Your task to perform on an android device: Clear the cart on target.com. Search for "usb-a to usb-b" on target.com, select the first entry, and add it to the cart. Image 0: 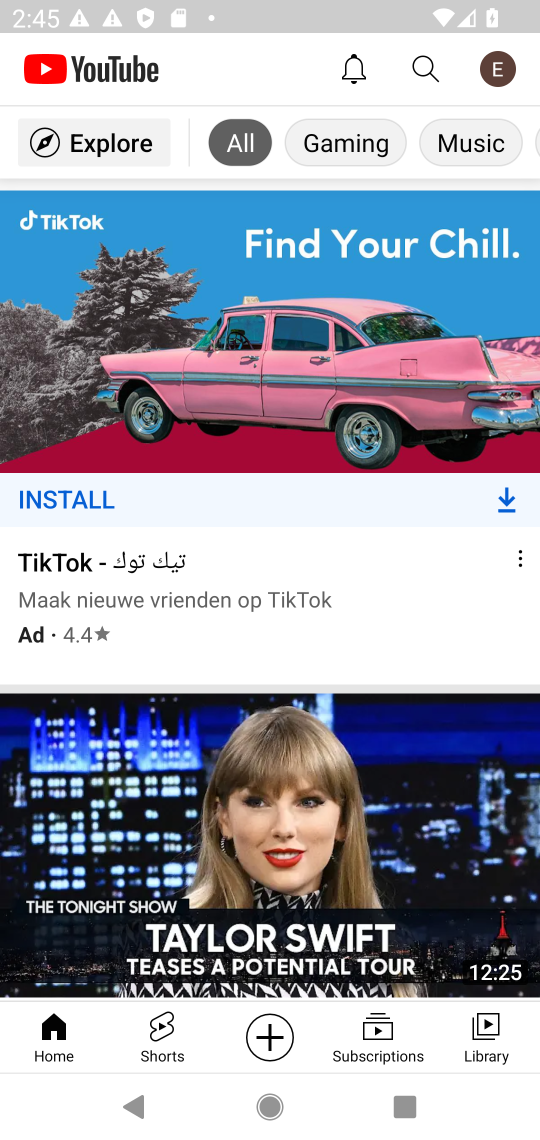
Step 0: drag from (382, 600) to (387, 273)
Your task to perform on an android device: Clear the cart on target.com. Search for "usb-a to usb-b" on target.com, select the first entry, and add it to the cart. Image 1: 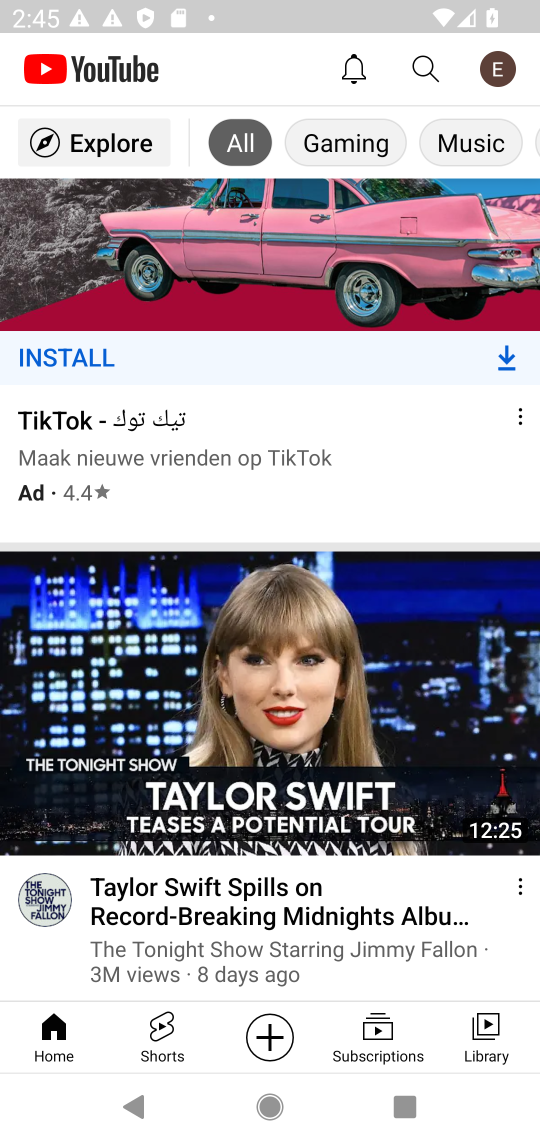
Step 1: drag from (323, 830) to (298, 263)
Your task to perform on an android device: Clear the cart on target.com. Search for "usb-a to usb-b" on target.com, select the first entry, and add it to the cart. Image 2: 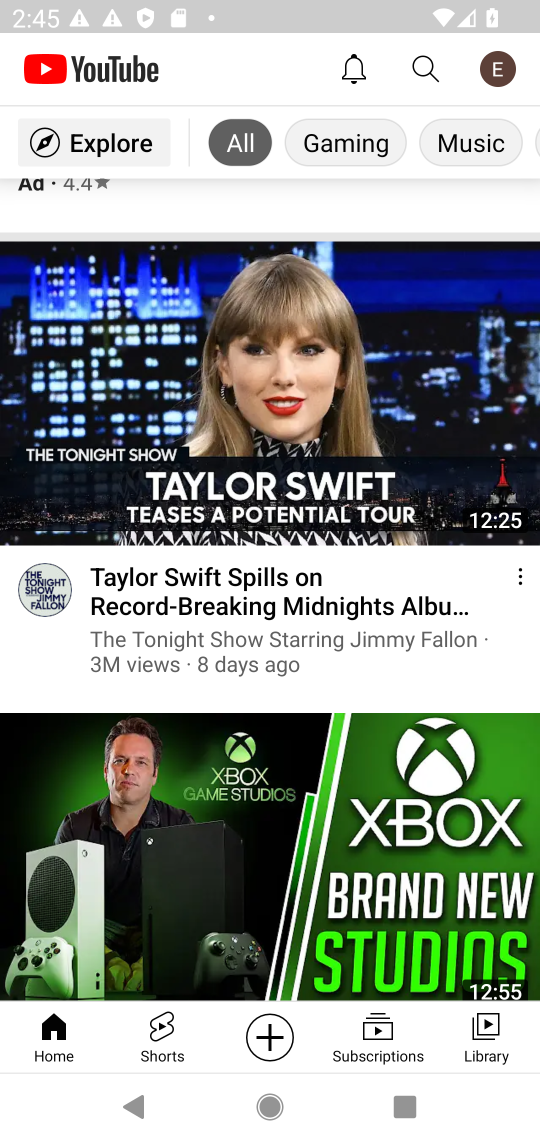
Step 2: press home button
Your task to perform on an android device: Clear the cart on target.com. Search for "usb-a to usb-b" on target.com, select the first entry, and add it to the cart. Image 3: 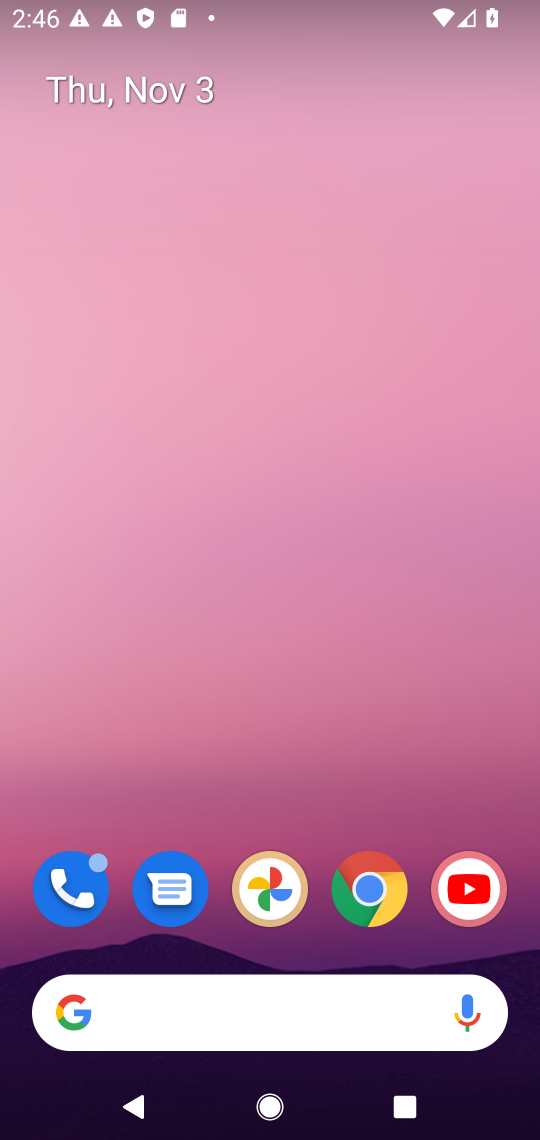
Step 3: click (366, 886)
Your task to perform on an android device: Clear the cart on target.com. Search for "usb-a to usb-b" on target.com, select the first entry, and add it to the cart. Image 4: 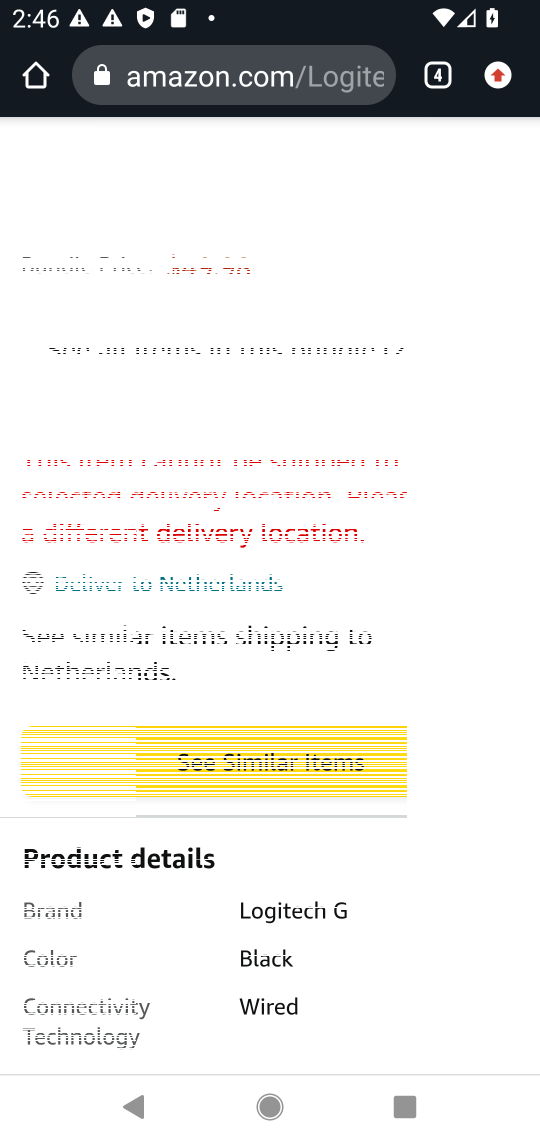
Step 4: click (439, 83)
Your task to perform on an android device: Clear the cart on target.com. Search for "usb-a to usb-b" on target.com, select the first entry, and add it to the cart. Image 5: 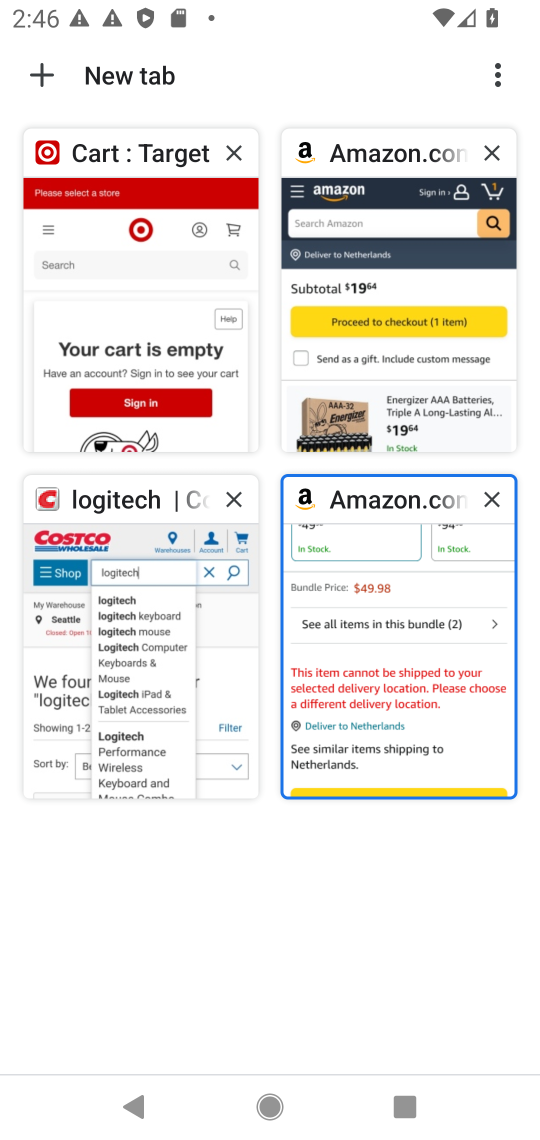
Step 5: click (124, 300)
Your task to perform on an android device: Clear the cart on target.com. Search for "usb-a to usb-b" on target.com, select the first entry, and add it to the cart. Image 6: 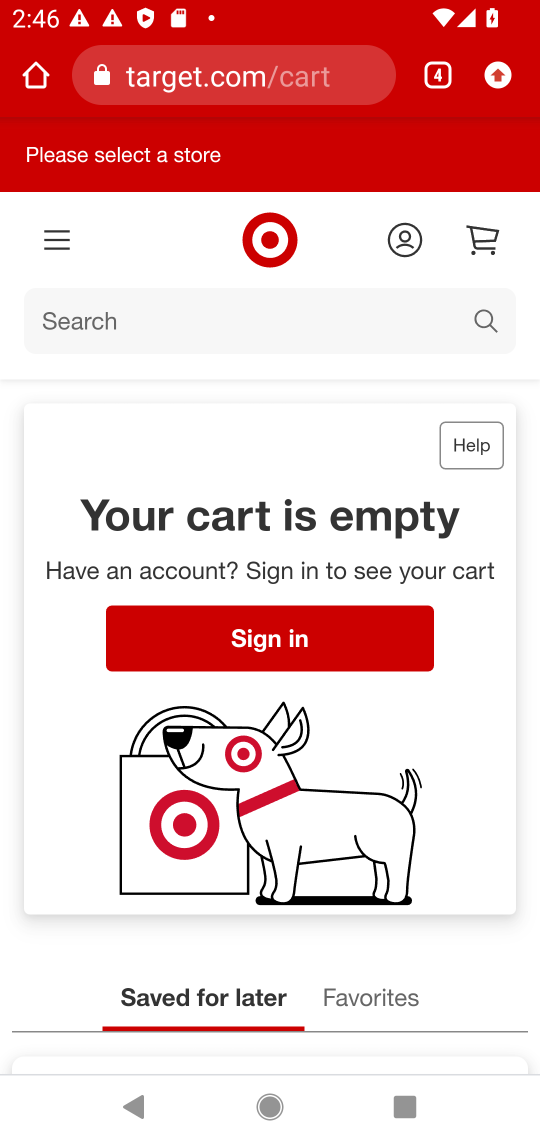
Step 6: click (478, 318)
Your task to perform on an android device: Clear the cart on target.com. Search for "usb-a to usb-b" on target.com, select the first entry, and add it to the cart. Image 7: 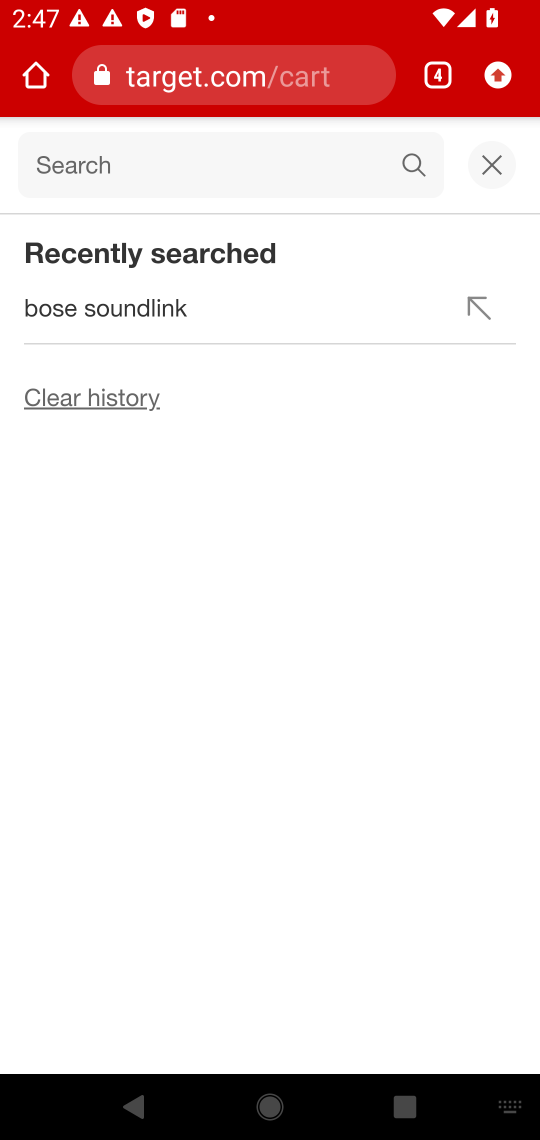
Step 7: click (92, 161)
Your task to perform on an android device: Clear the cart on target.com. Search for "usb-a to usb-b" on target.com, select the first entry, and add it to the cart. Image 8: 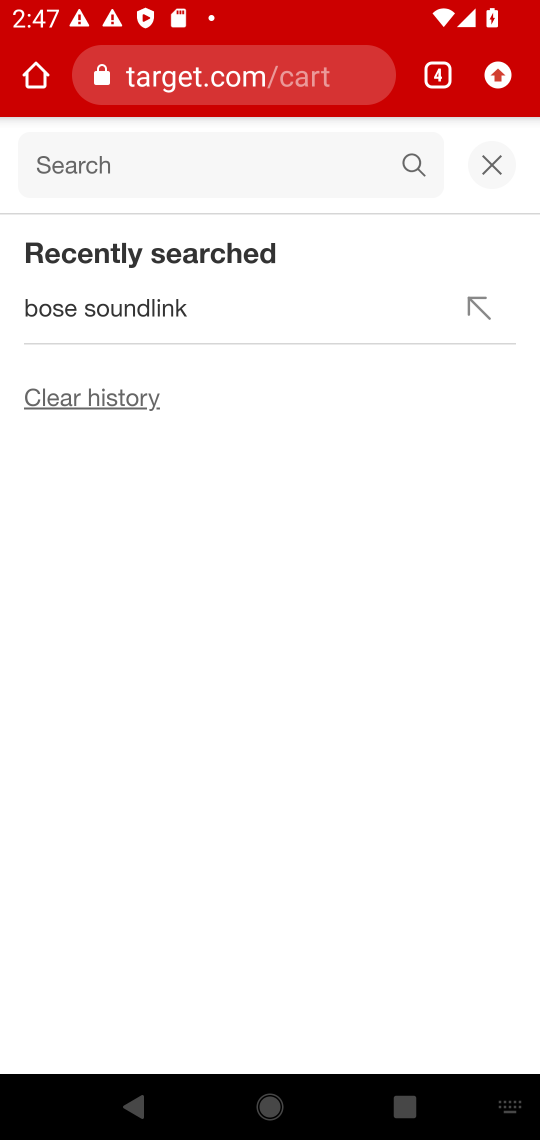
Step 8: type "usb-a to usb-b"
Your task to perform on an android device: Clear the cart on target.com. Search for "usb-a to usb-b" on target.com, select the first entry, and add it to the cart. Image 9: 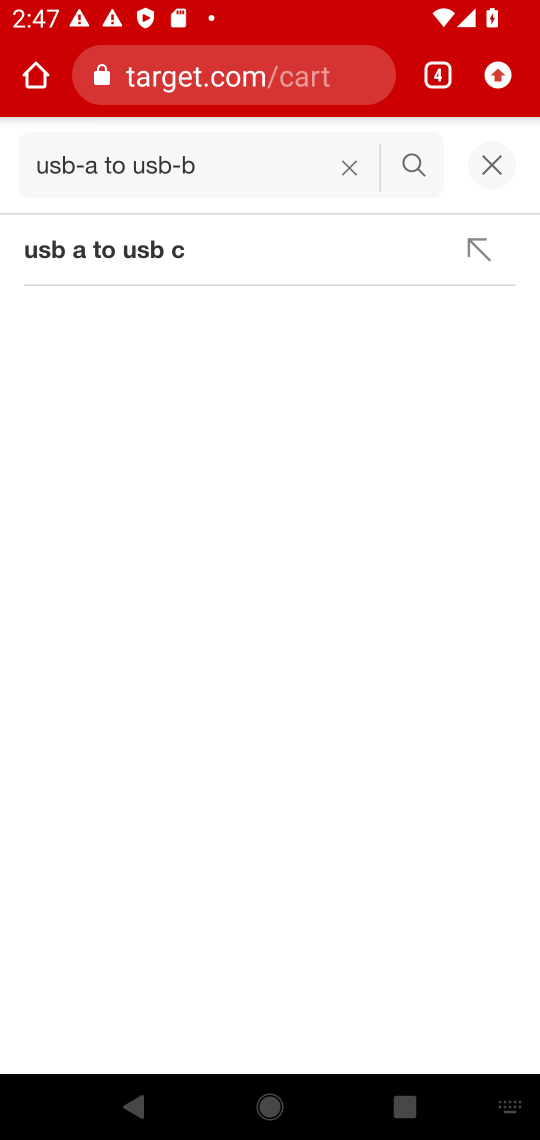
Step 9: click (55, 237)
Your task to perform on an android device: Clear the cart on target.com. Search for "usb-a to usb-b" on target.com, select the first entry, and add it to the cart. Image 10: 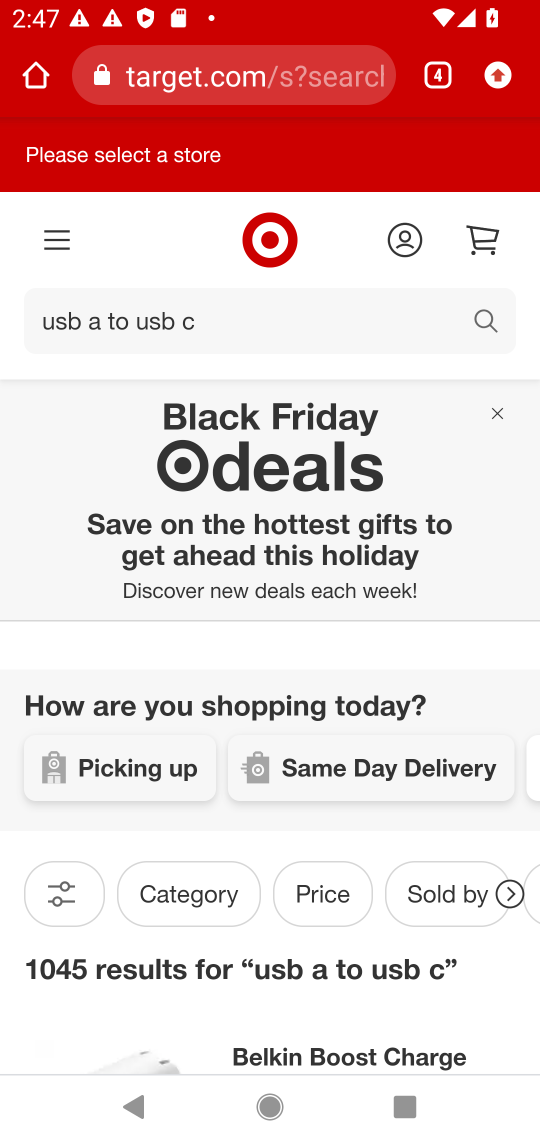
Step 10: drag from (301, 843) to (341, 297)
Your task to perform on an android device: Clear the cart on target.com. Search for "usb-a to usb-b" on target.com, select the first entry, and add it to the cart. Image 11: 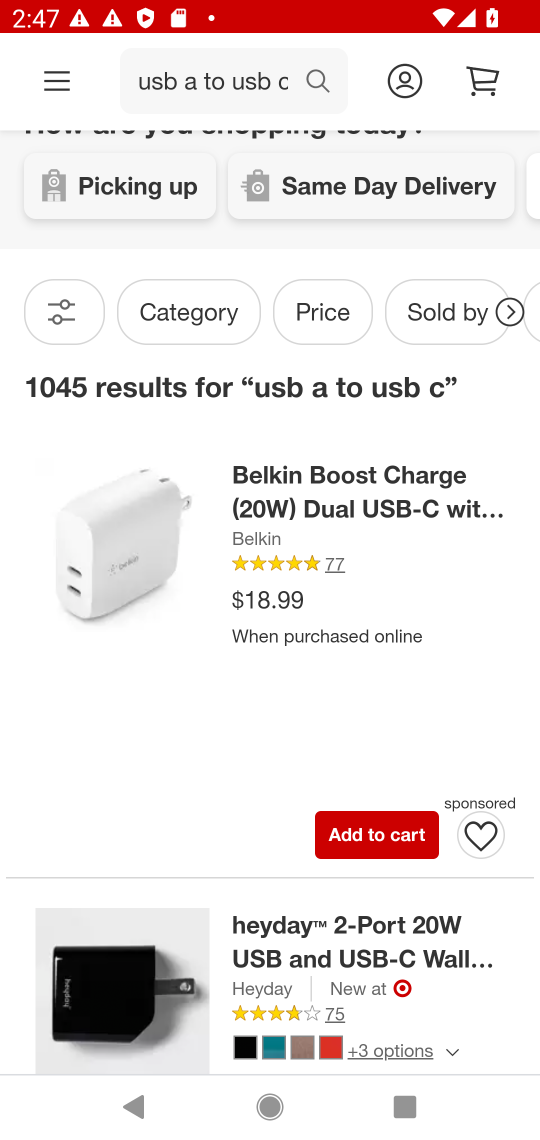
Step 11: drag from (201, 957) to (252, 611)
Your task to perform on an android device: Clear the cart on target.com. Search for "usb-a to usb-b" on target.com, select the first entry, and add it to the cart. Image 12: 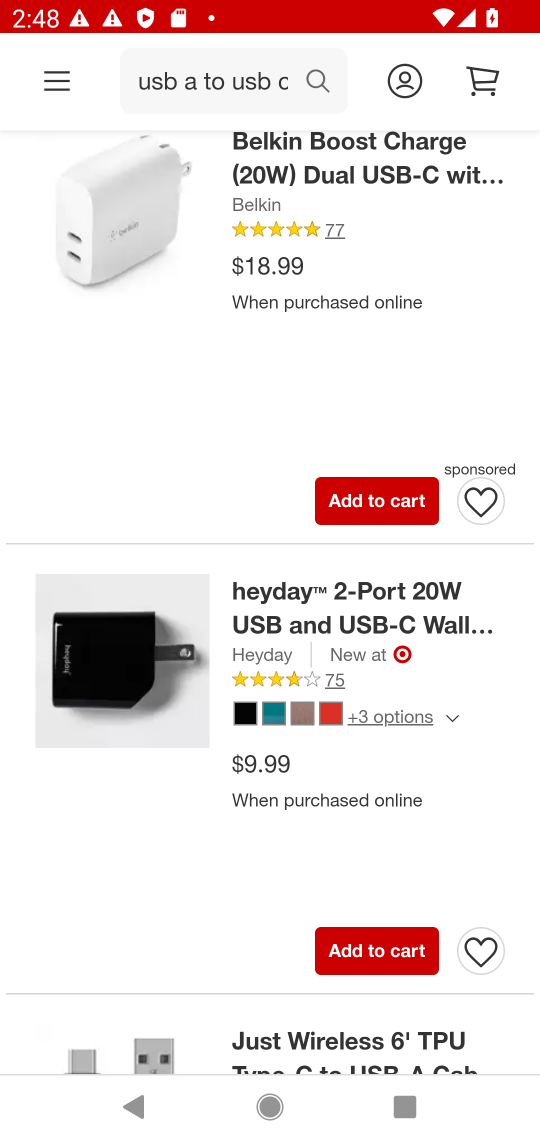
Step 12: drag from (306, 402) to (258, 848)
Your task to perform on an android device: Clear the cart on target.com. Search for "usb-a to usb-b" on target.com, select the first entry, and add it to the cart. Image 13: 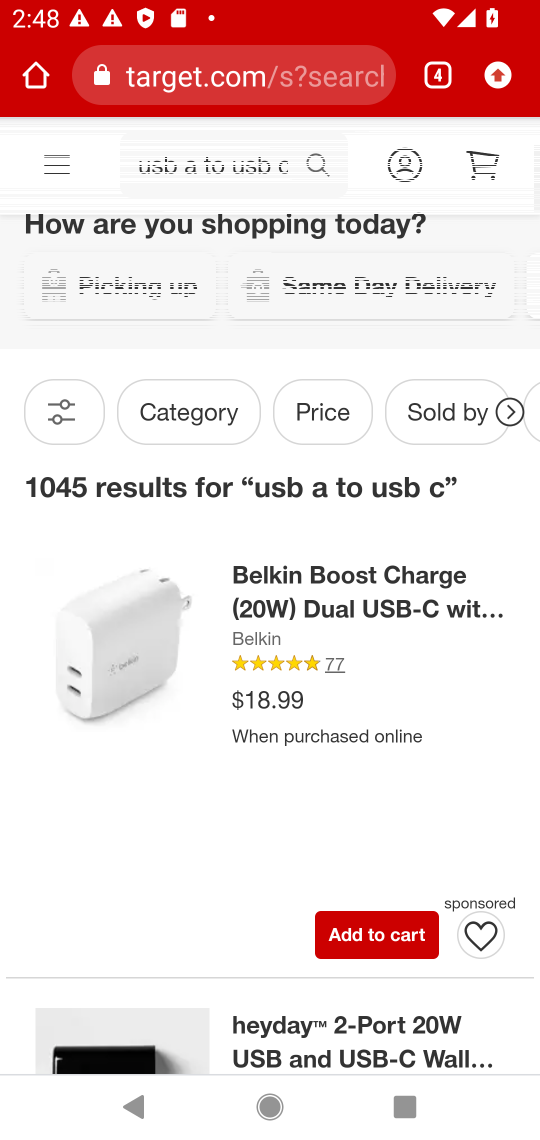
Step 13: click (390, 572)
Your task to perform on an android device: Clear the cart on target.com. Search for "usb-a to usb-b" on target.com, select the first entry, and add it to the cart. Image 14: 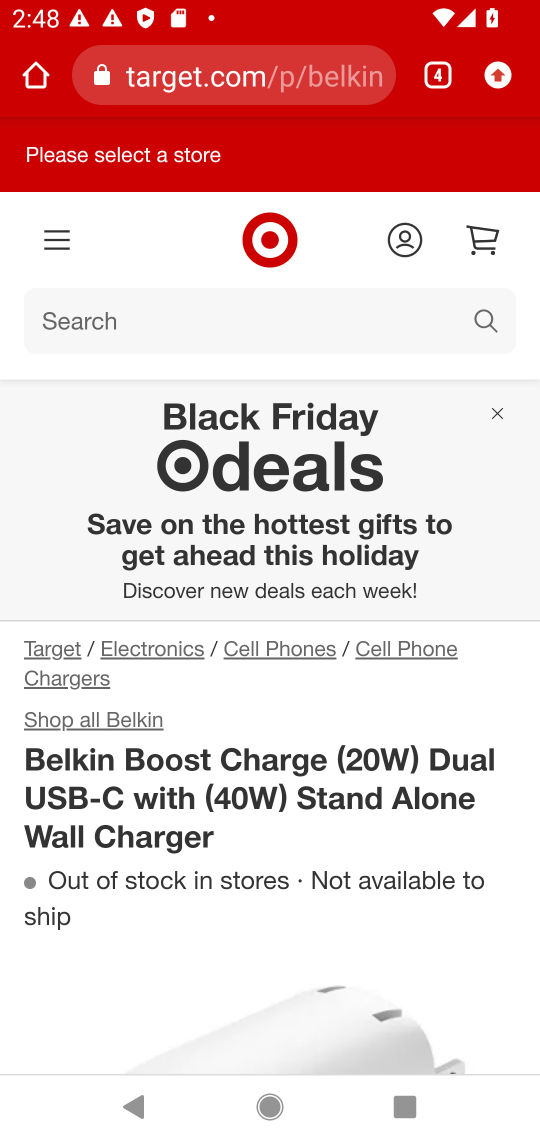
Step 14: drag from (272, 929) to (285, 453)
Your task to perform on an android device: Clear the cart on target.com. Search for "usb-a to usb-b" on target.com, select the first entry, and add it to the cart. Image 15: 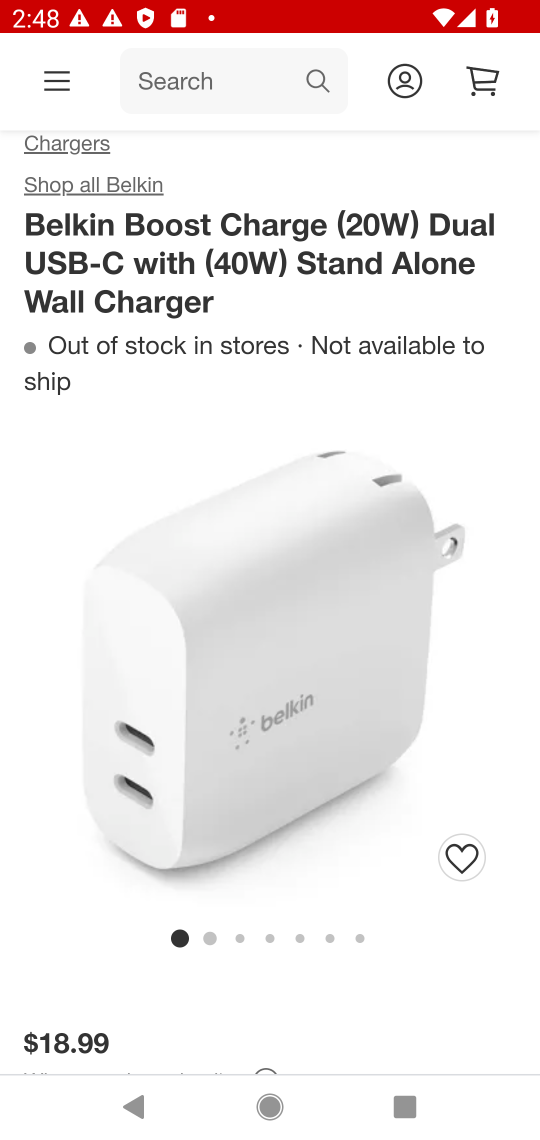
Step 15: drag from (257, 883) to (285, 435)
Your task to perform on an android device: Clear the cart on target.com. Search for "usb-a to usb-b" on target.com, select the first entry, and add it to the cart. Image 16: 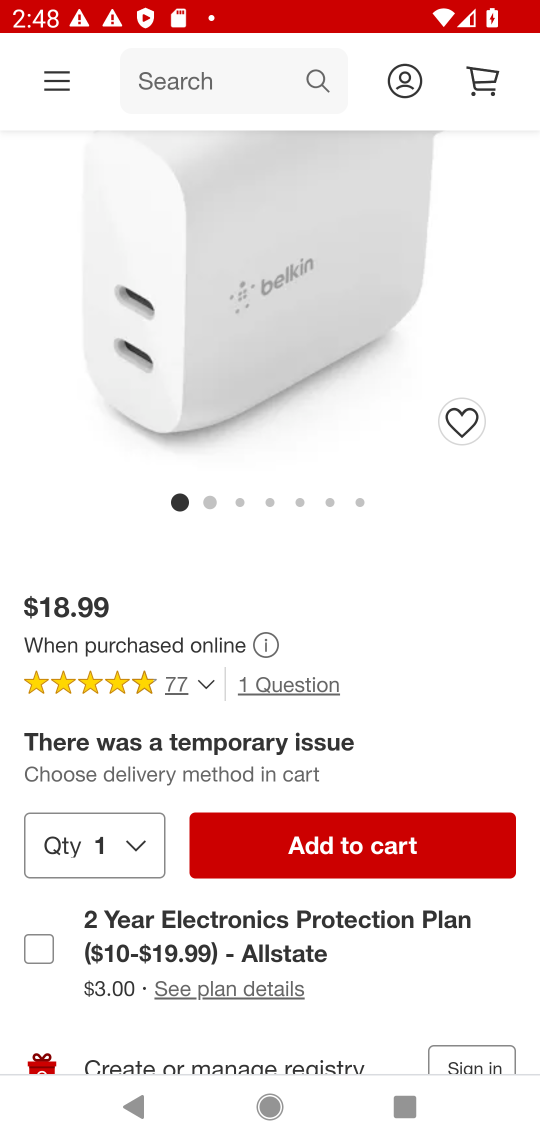
Step 16: click (346, 845)
Your task to perform on an android device: Clear the cart on target.com. Search for "usb-a to usb-b" on target.com, select the first entry, and add it to the cart. Image 17: 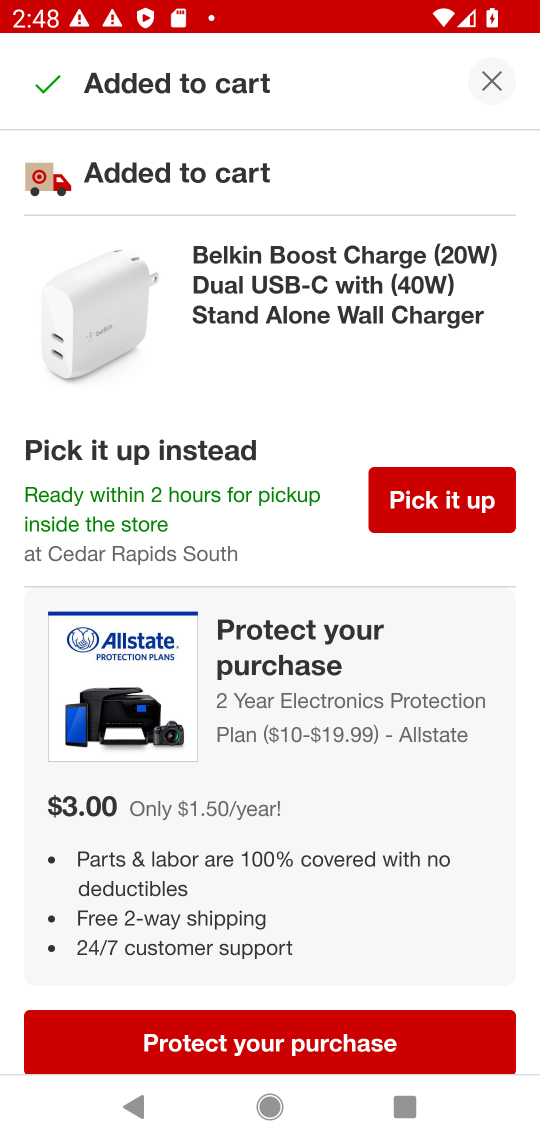
Step 17: task complete